Your task to perform on an android device: Toggle the flashlight Image 0: 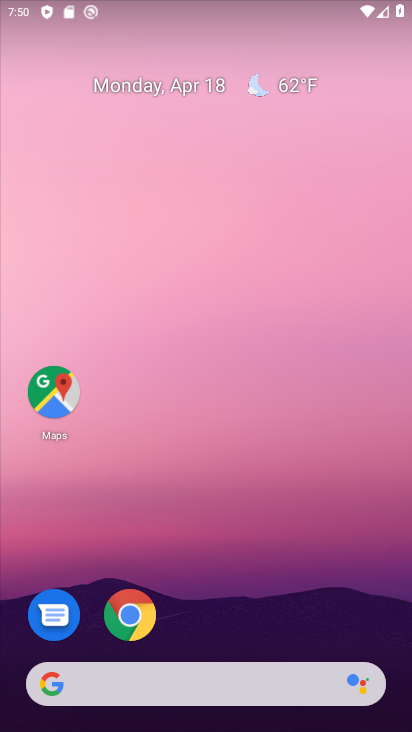
Step 0: drag from (339, 364) to (305, 581)
Your task to perform on an android device: Toggle the flashlight Image 1: 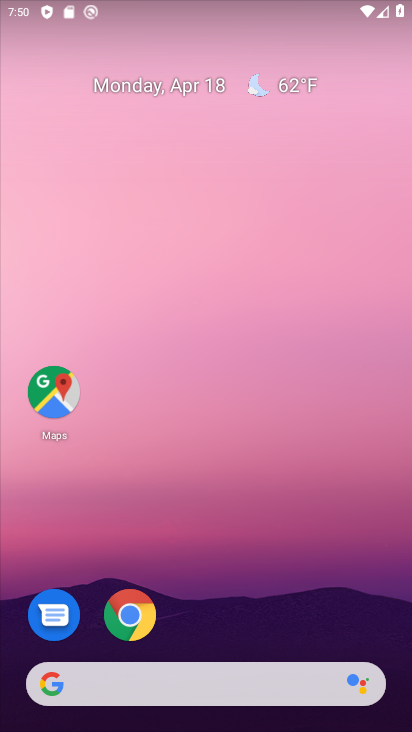
Step 1: drag from (302, 165) to (241, 650)
Your task to perform on an android device: Toggle the flashlight Image 2: 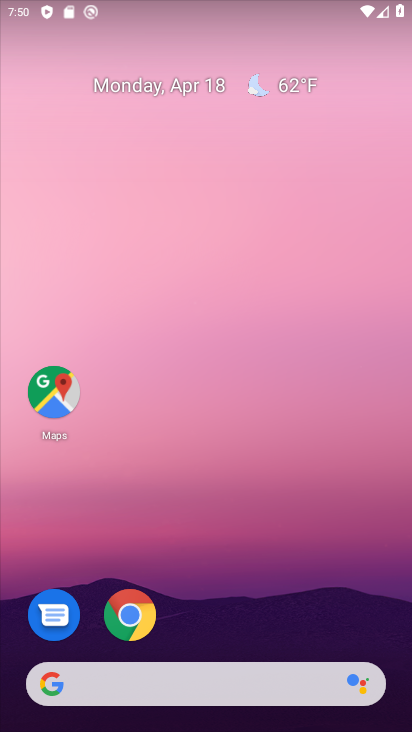
Step 2: drag from (313, 3) to (312, 487)
Your task to perform on an android device: Toggle the flashlight Image 3: 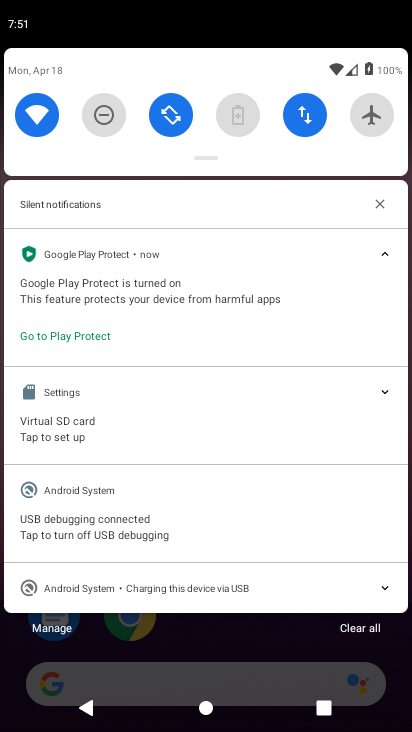
Step 3: drag from (219, 163) to (202, 546)
Your task to perform on an android device: Toggle the flashlight Image 4: 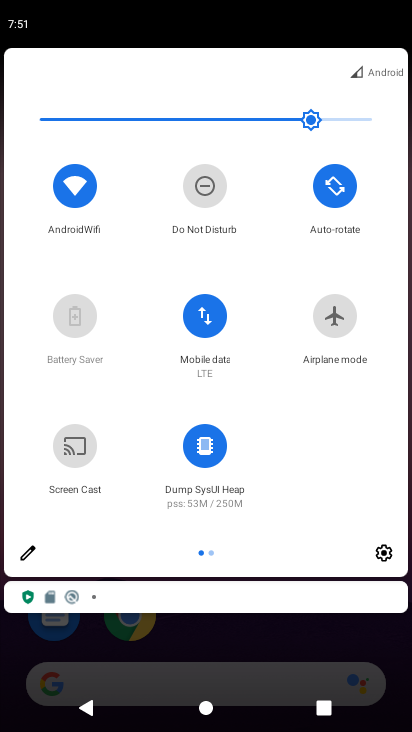
Step 4: drag from (204, 161) to (401, 442)
Your task to perform on an android device: Toggle the flashlight Image 5: 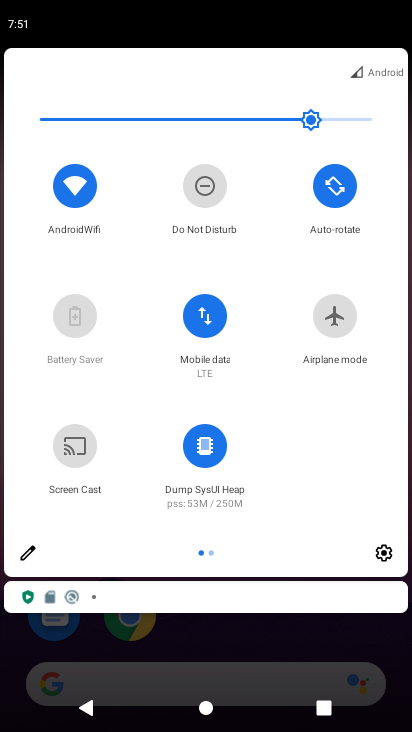
Step 5: click (5, 533)
Your task to perform on an android device: Toggle the flashlight Image 6: 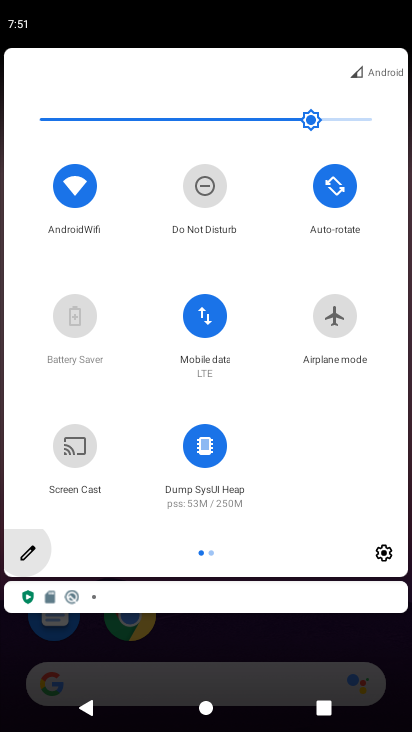
Step 6: click (2, 495)
Your task to perform on an android device: Toggle the flashlight Image 7: 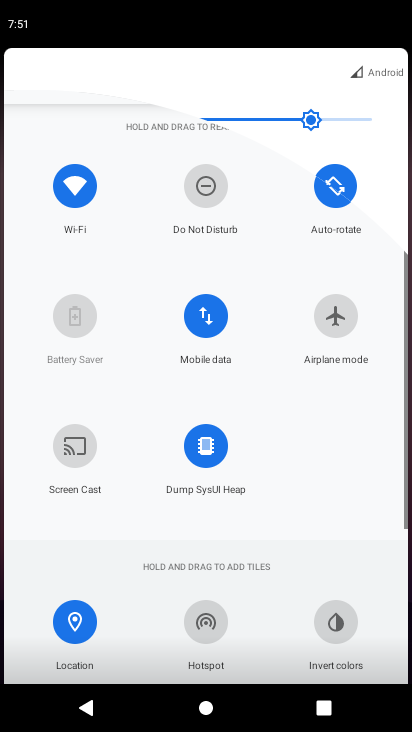
Step 7: task complete